Your task to perform on an android device: What's the weather going to be tomorrow? Image 0: 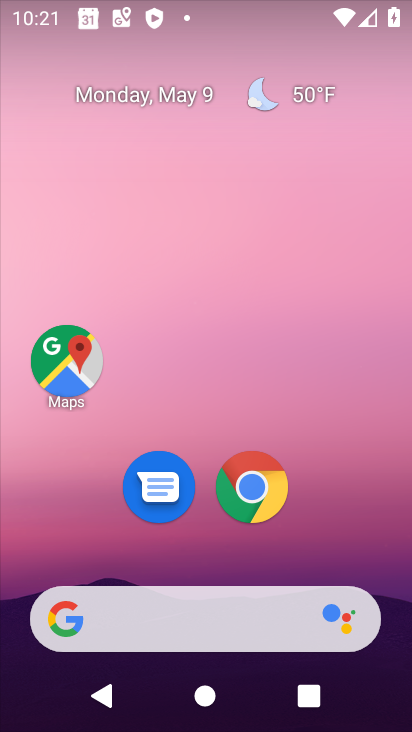
Step 0: click (141, 604)
Your task to perform on an android device: What's the weather going to be tomorrow? Image 1: 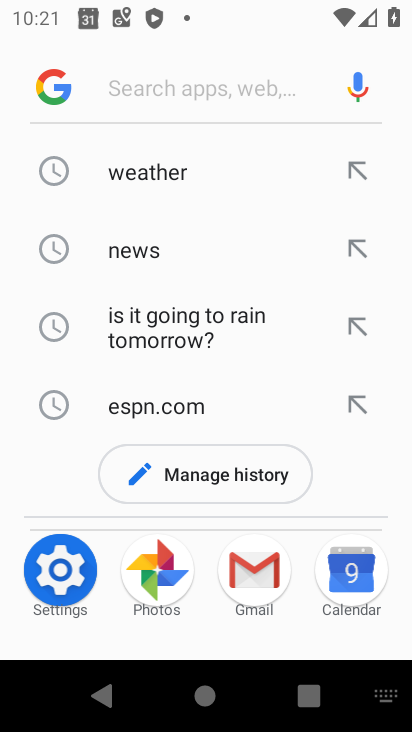
Step 1: click (101, 164)
Your task to perform on an android device: What's the weather going to be tomorrow? Image 2: 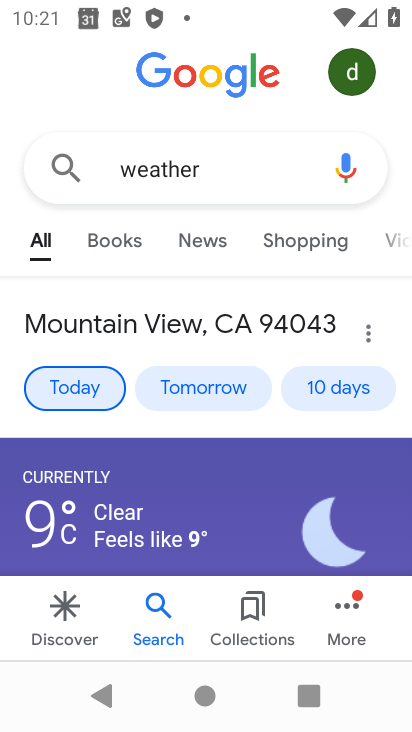
Step 2: task complete